Your task to perform on an android device: Go to Yahoo.com Image 0: 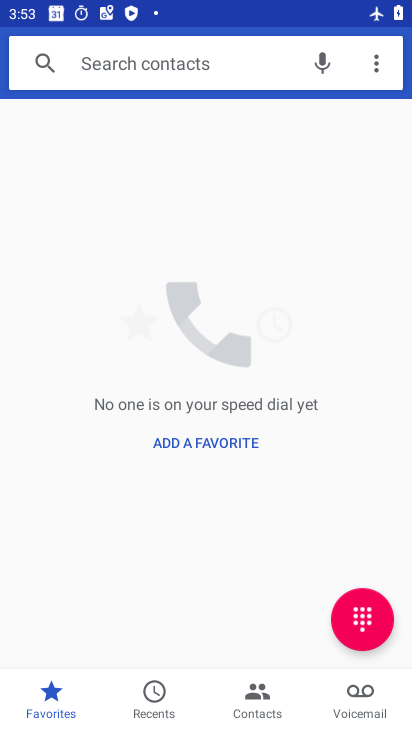
Step 0: press home button
Your task to perform on an android device: Go to Yahoo.com Image 1: 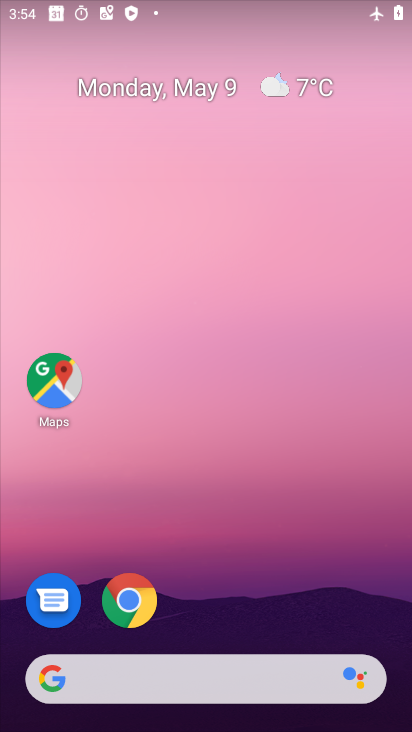
Step 1: click (261, 629)
Your task to perform on an android device: Go to Yahoo.com Image 2: 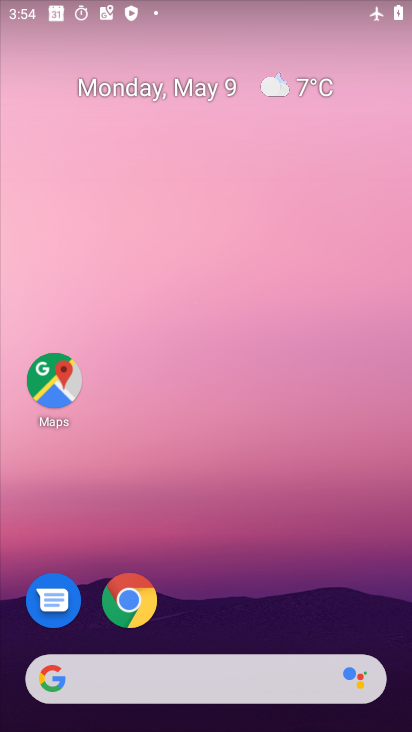
Step 2: click (130, 603)
Your task to perform on an android device: Go to Yahoo.com Image 3: 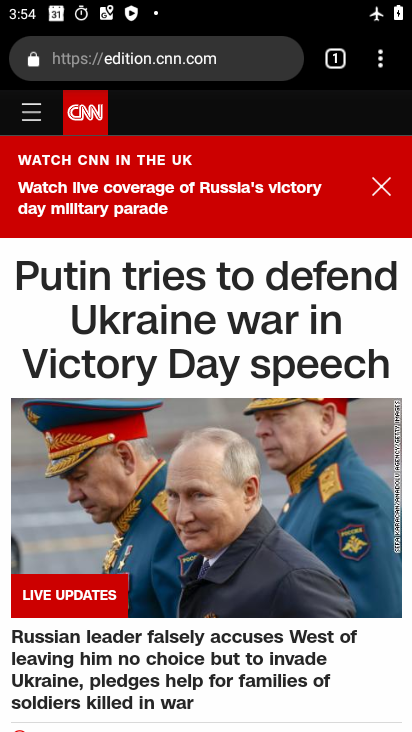
Step 3: click (135, 38)
Your task to perform on an android device: Go to Yahoo.com Image 4: 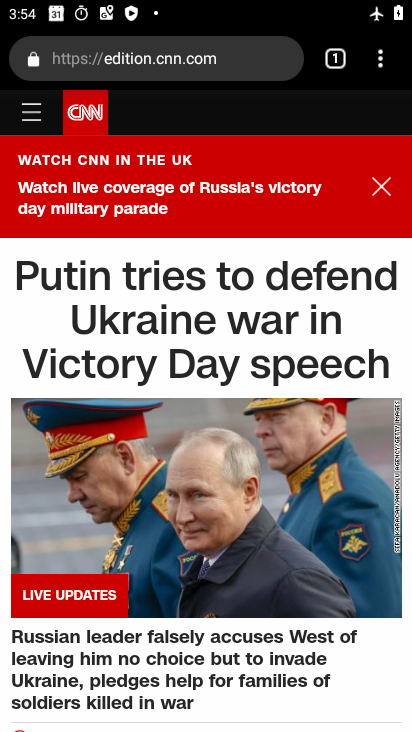
Step 4: click (135, 57)
Your task to perform on an android device: Go to Yahoo.com Image 5: 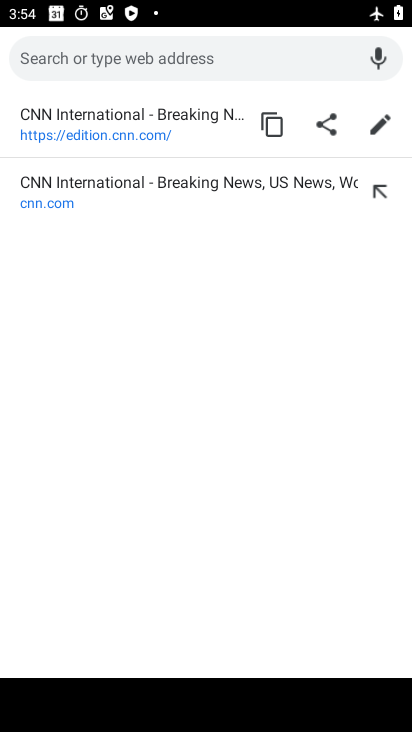
Step 5: type "yahoo.com"
Your task to perform on an android device: Go to Yahoo.com Image 6: 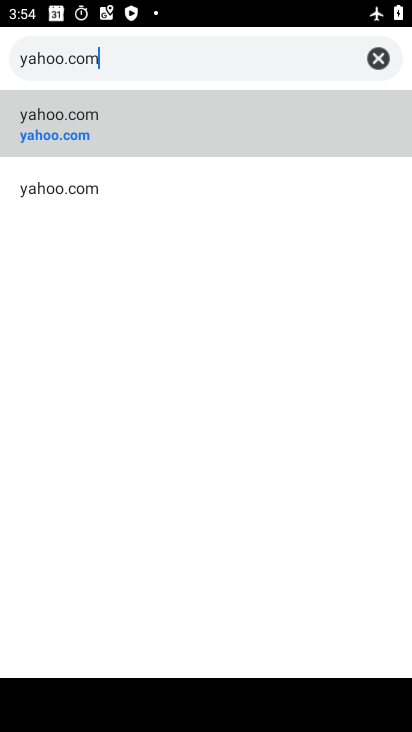
Step 6: click (47, 137)
Your task to perform on an android device: Go to Yahoo.com Image 7: 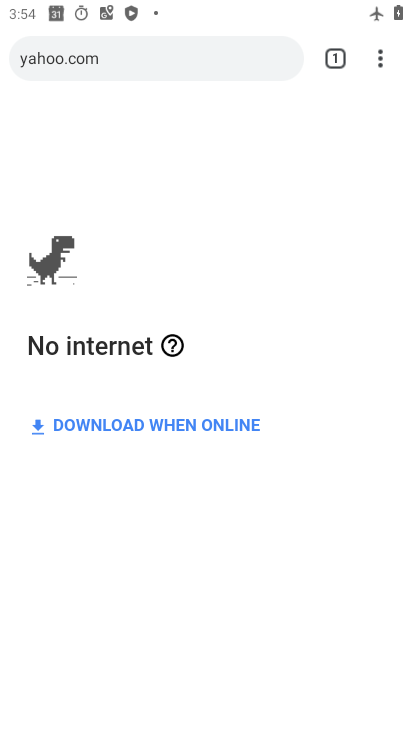
Step 7: task complete